Your task to perform on an android device: turn on sleep mode Image 0: 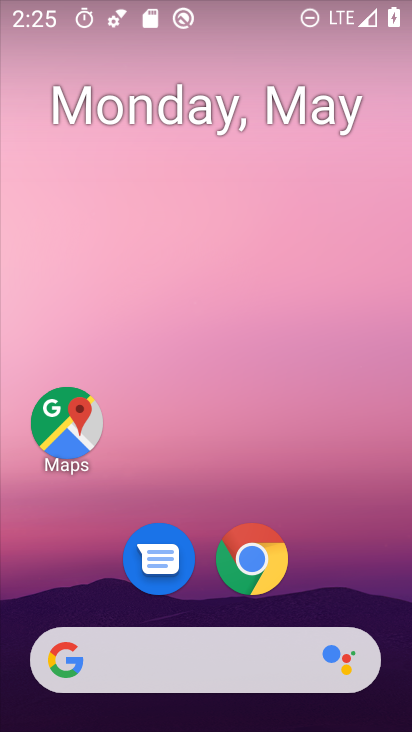
Step 0: drag from (354, 619) to (328, 13)
Your task to perform on an android device: turn on sleep mode Image 1: 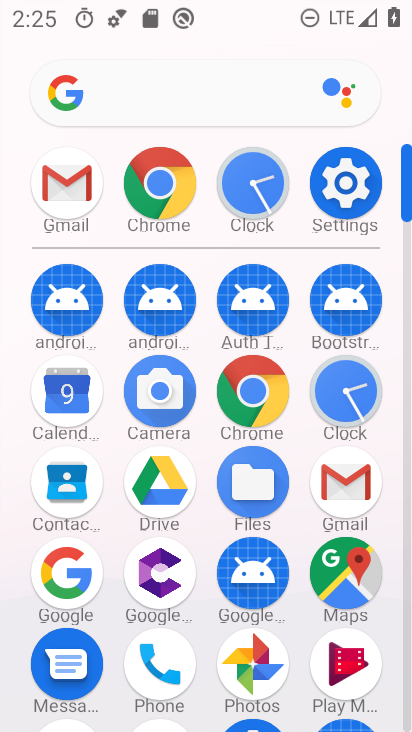
Step 1: click (339, 192)
Your task to perform on an android device: turn on sleep mode Image 2: 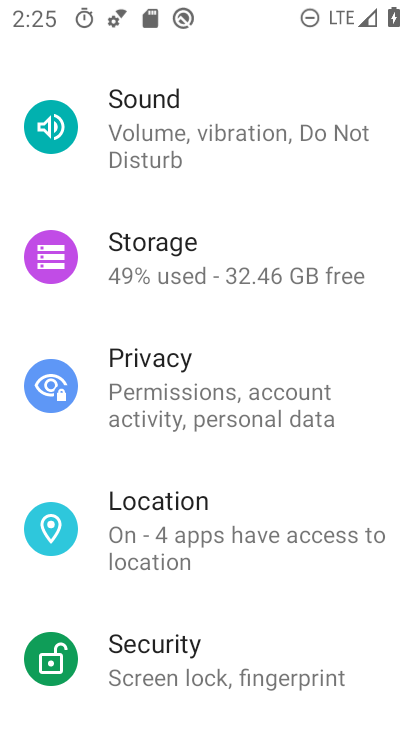
Step 2: drag from (272, 511) to (259, 164)
Your task to perform on an android device: turn on sleep mode Image 3: 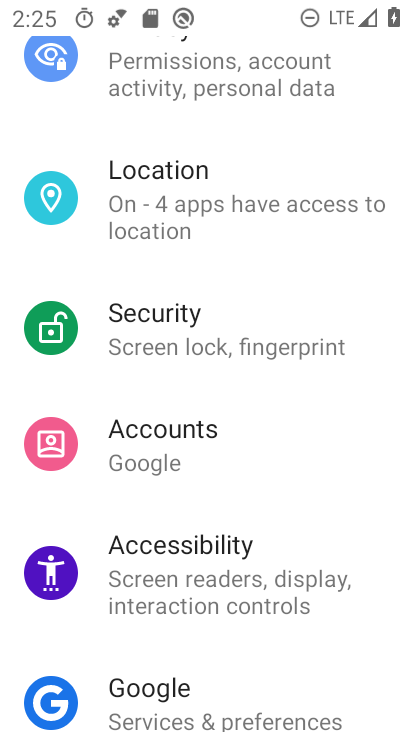
Step 3: drag from (260, 457) to (254, 177)
Your task to perform on an android device: turn on sleep mode Image 4: 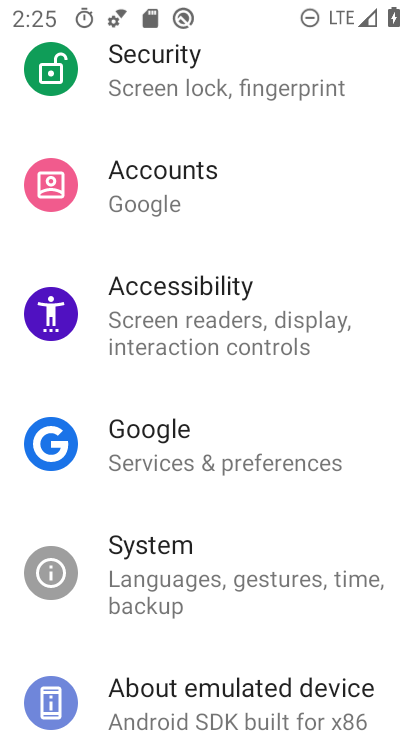
Step 4: drag from (251, 244) to (288, 580)
Your task to perform on an android device: turn on sleep mode Image 5: 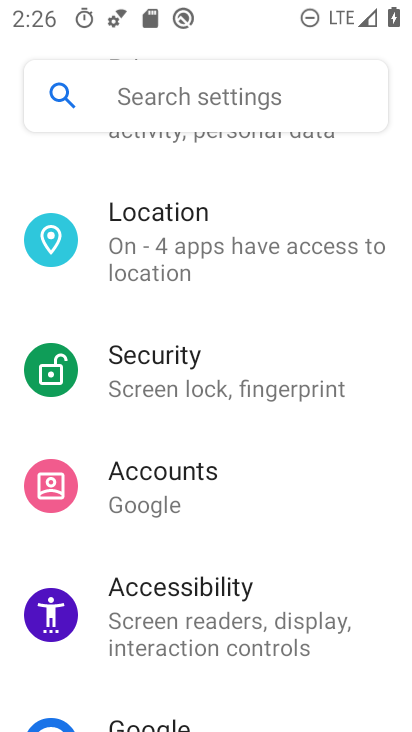
Step 5: drag from (299, 197) to (267, 629)
Your task to perform on an android device: turn on sleep mode Image 6: 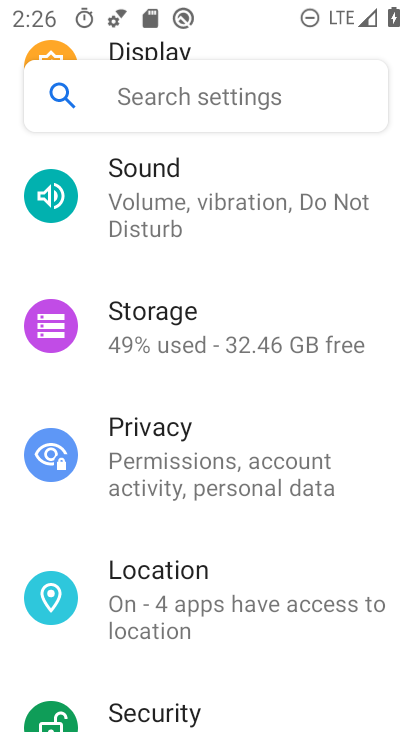
Step 6: drag from (258, 258) to (258, 556)
Your task to perform on an android device: turn on sleep mode Image 7: 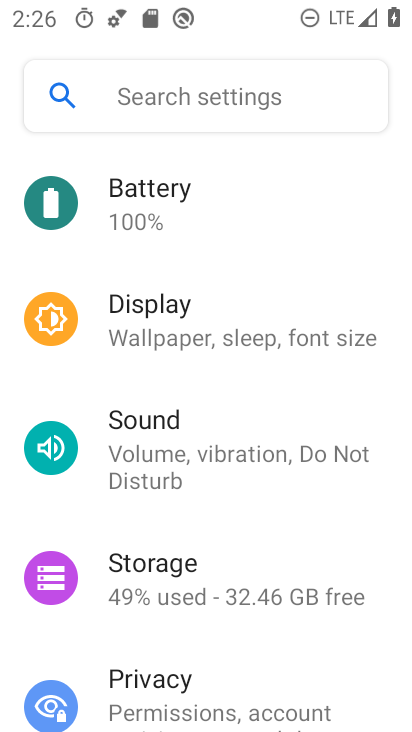
Step 7: click (164, 340)
Your task to perform on an android device: turn on sleep mode Image 8: 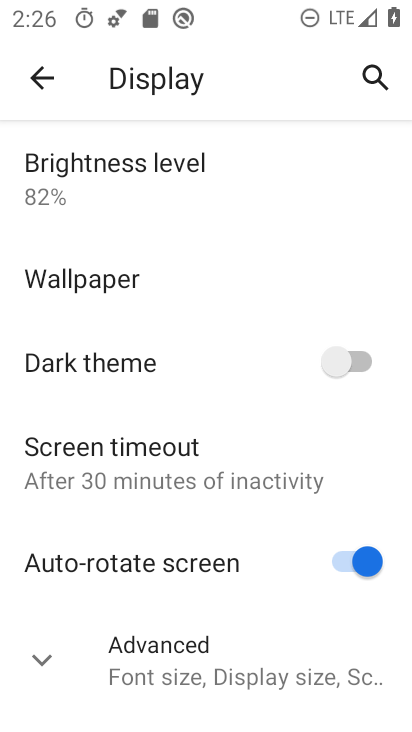
Step 8: click (43, 667)
Your task to perform on an android device: turn on sleep mode Image 9: 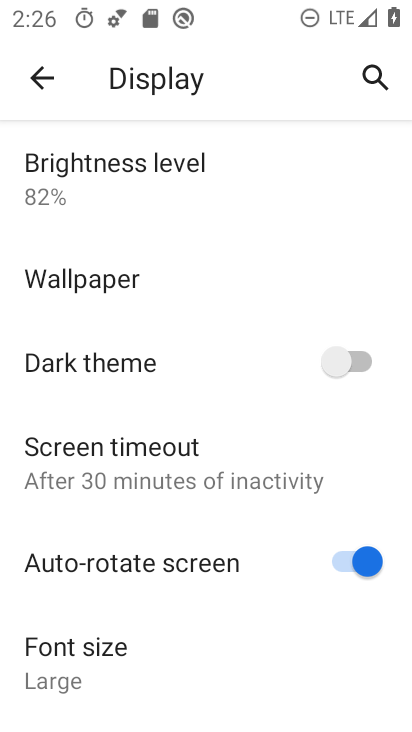
Step 9: task complete